Your task to perform on an android device: Go to Google Image 0: 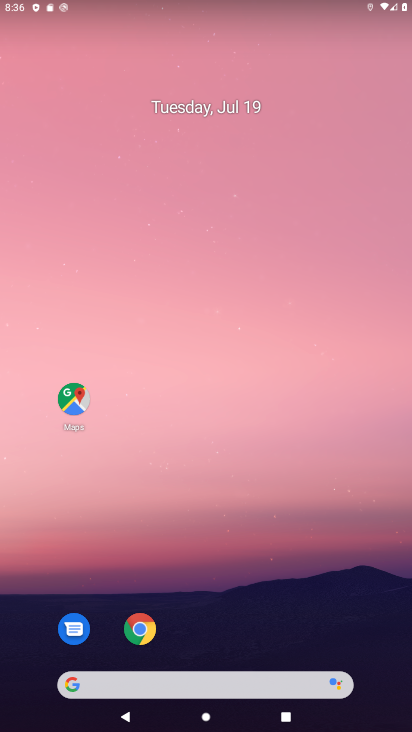
Step 0: press home button
Your task to perform on an android device: Go to Google Image 1: 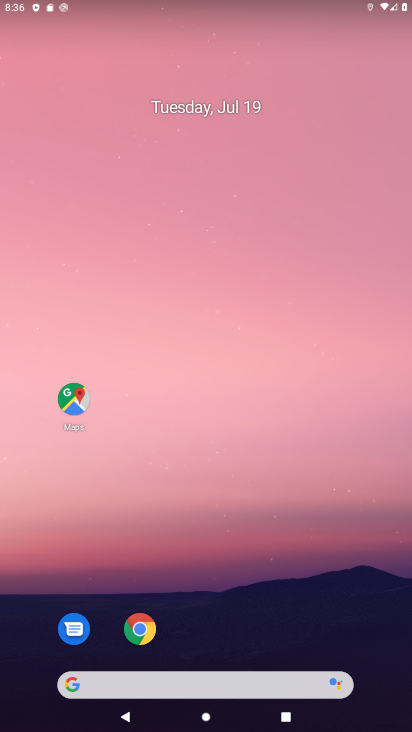
Step 1: drag from (228, 643) to (227, 187)
Your task to perform on an android device: Go to Google Image 2: 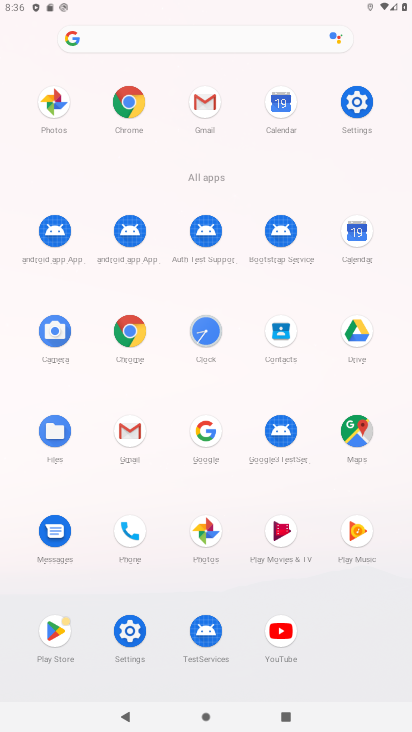
Step 2: click (200, 425)
Your task to perform on an android device: Go to Google Image 3: 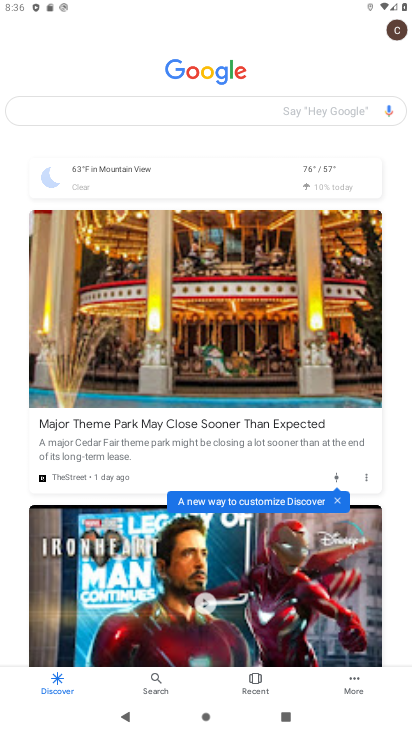
Step 3: click (153, 672)
Your task to perform on an android device: Go to Google Image 4: 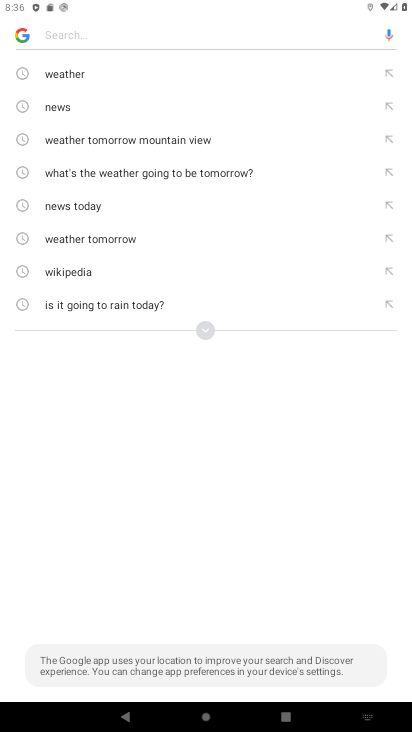
Step 4: press back button
Your task to perform on an android device: Go to Google Image 5: 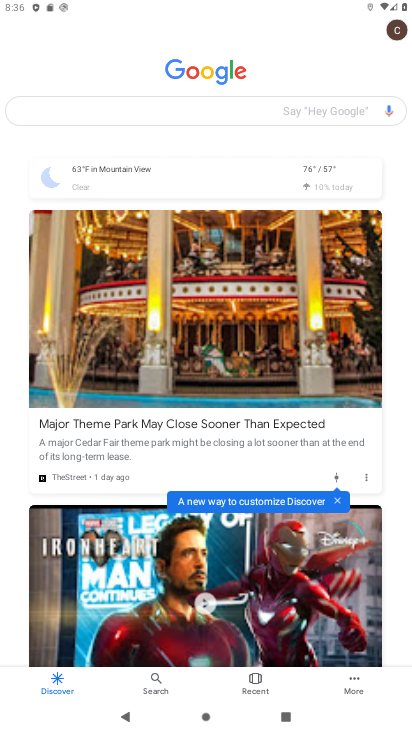
Step 5: click (250, 684)
Your task to perform on an android device: Go to Google Image 6: 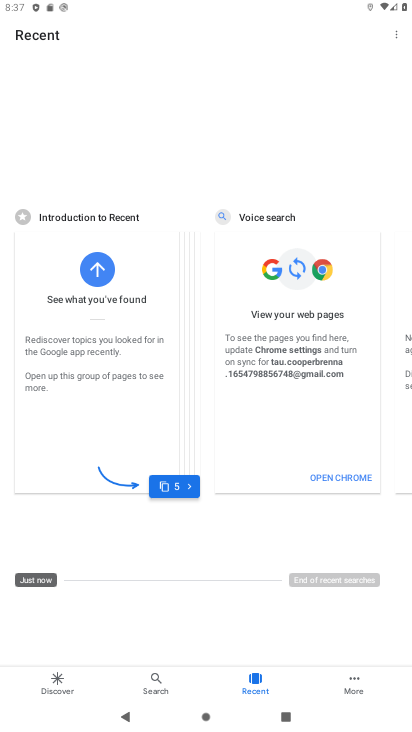
Step 6: click (356, 678)
Your task to perform on an android device: Go to Google Image 7: 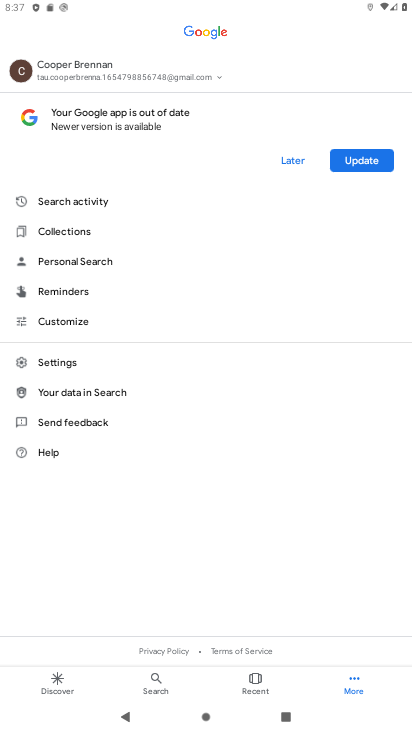
Step 7: task complete